Your task to perform on an android device: Open Reddit.com Image 0: 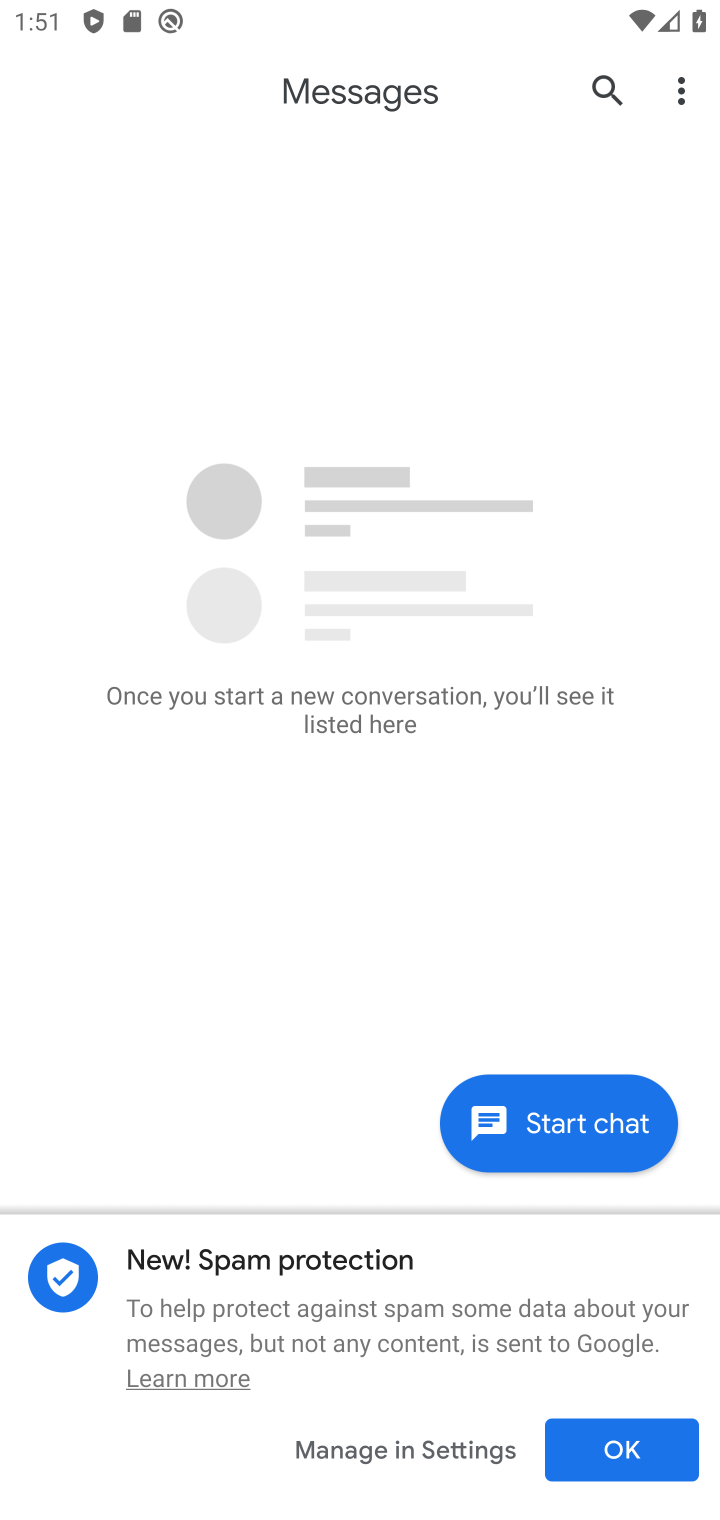
Step 0: press home button
Your task to perform on an android device: Open Reddit.com Image 1: 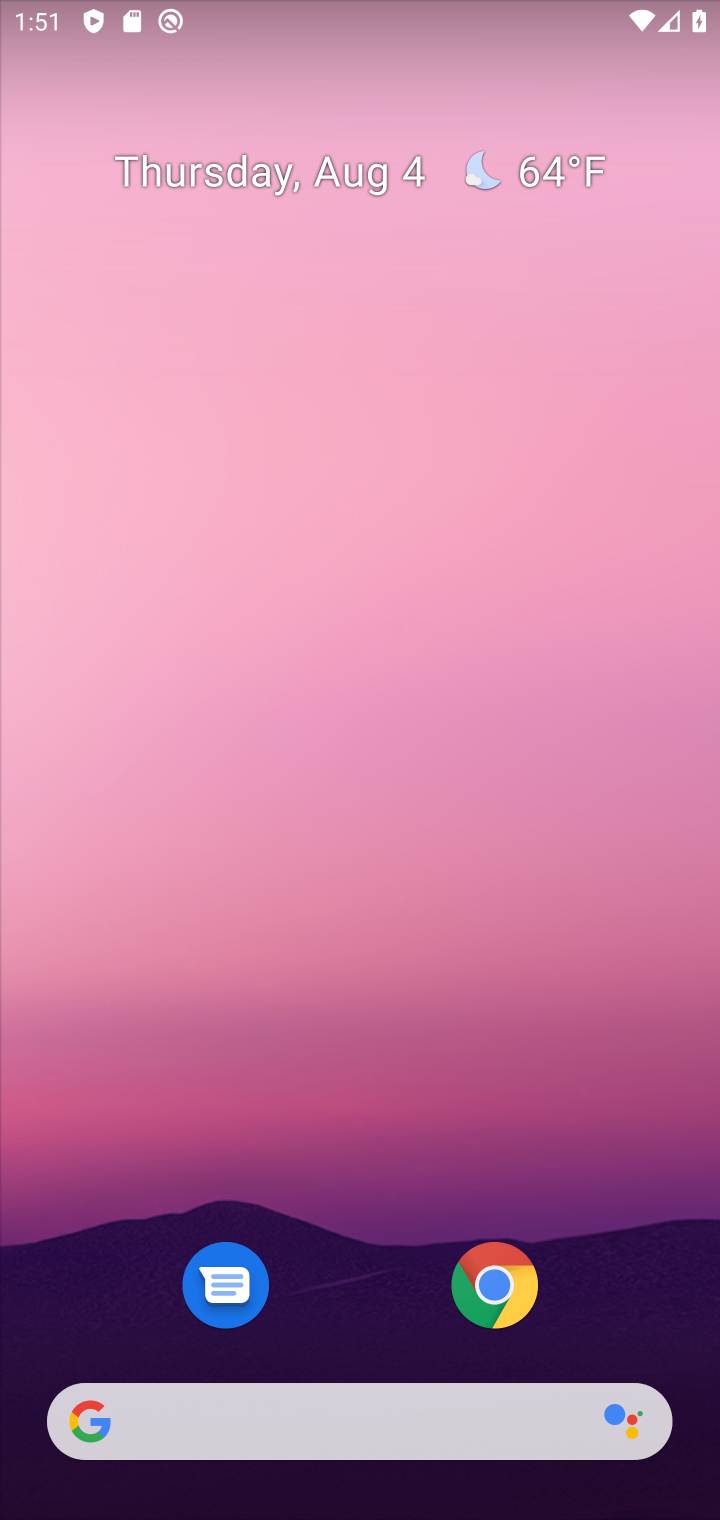
Step 1: click (500, 1283)
Your task to perform on an android device: Open Reddit.com Image 2: 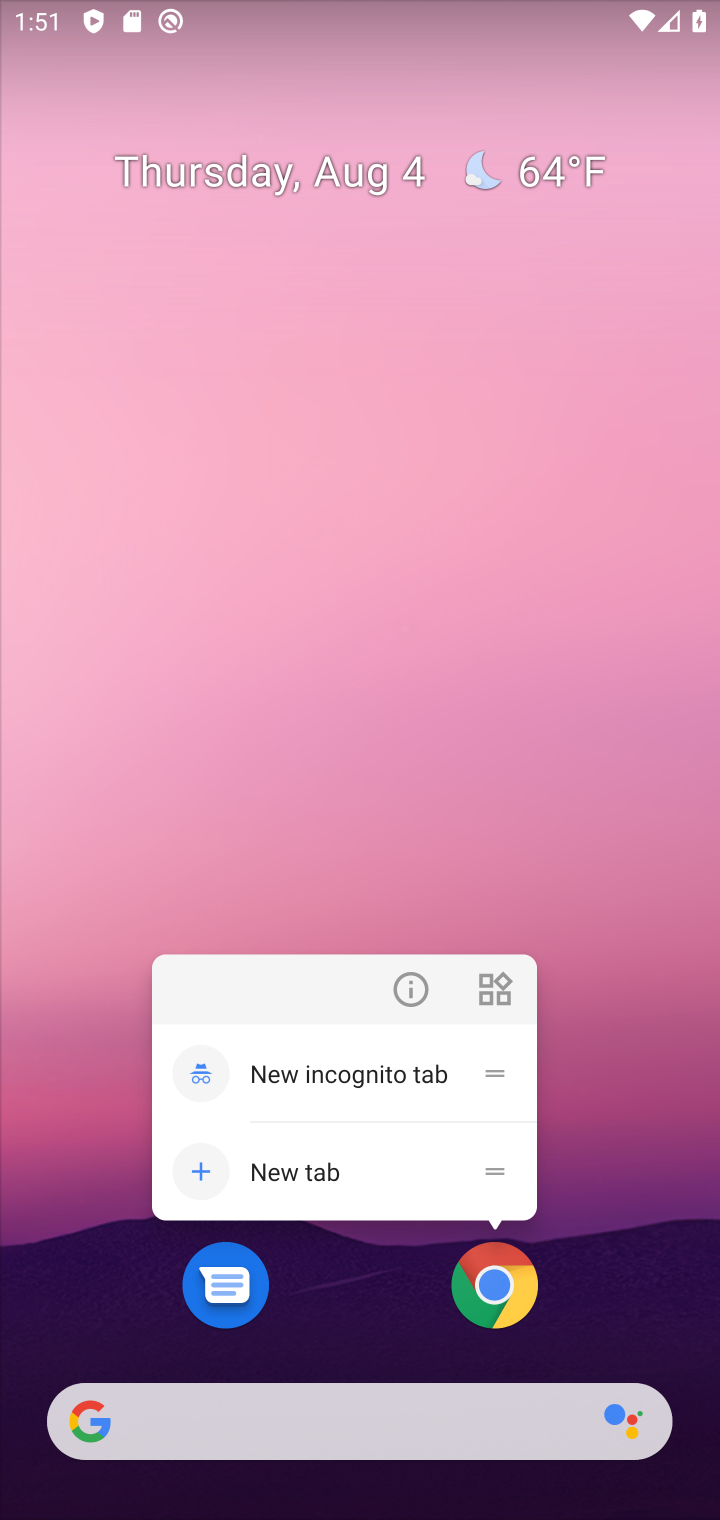
Step 2: click (494, 1285)
Your task to perform on an android device: Open Reddit.com Image 3: 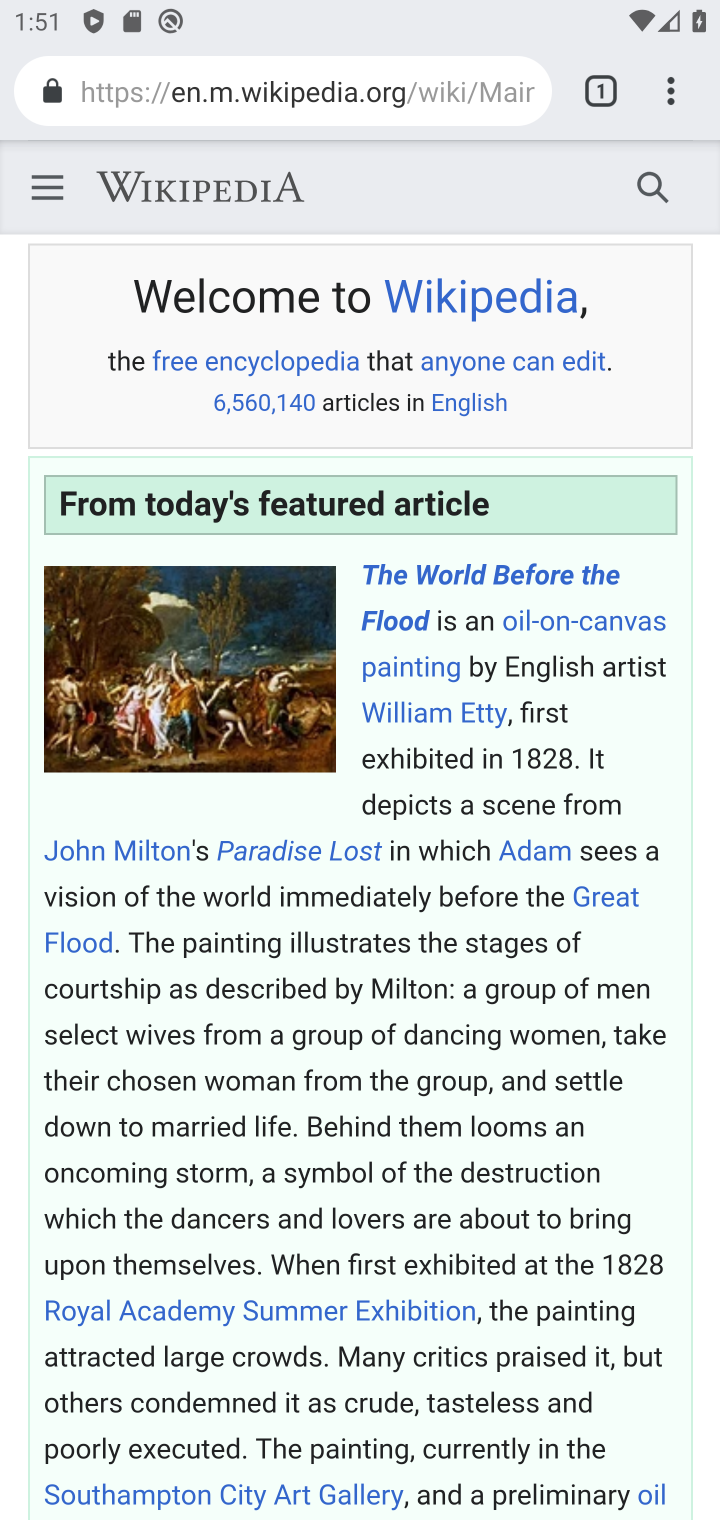
Step 3: click (529, 89)
Your task to perform on an android device: Open Reddit.com Image 4: 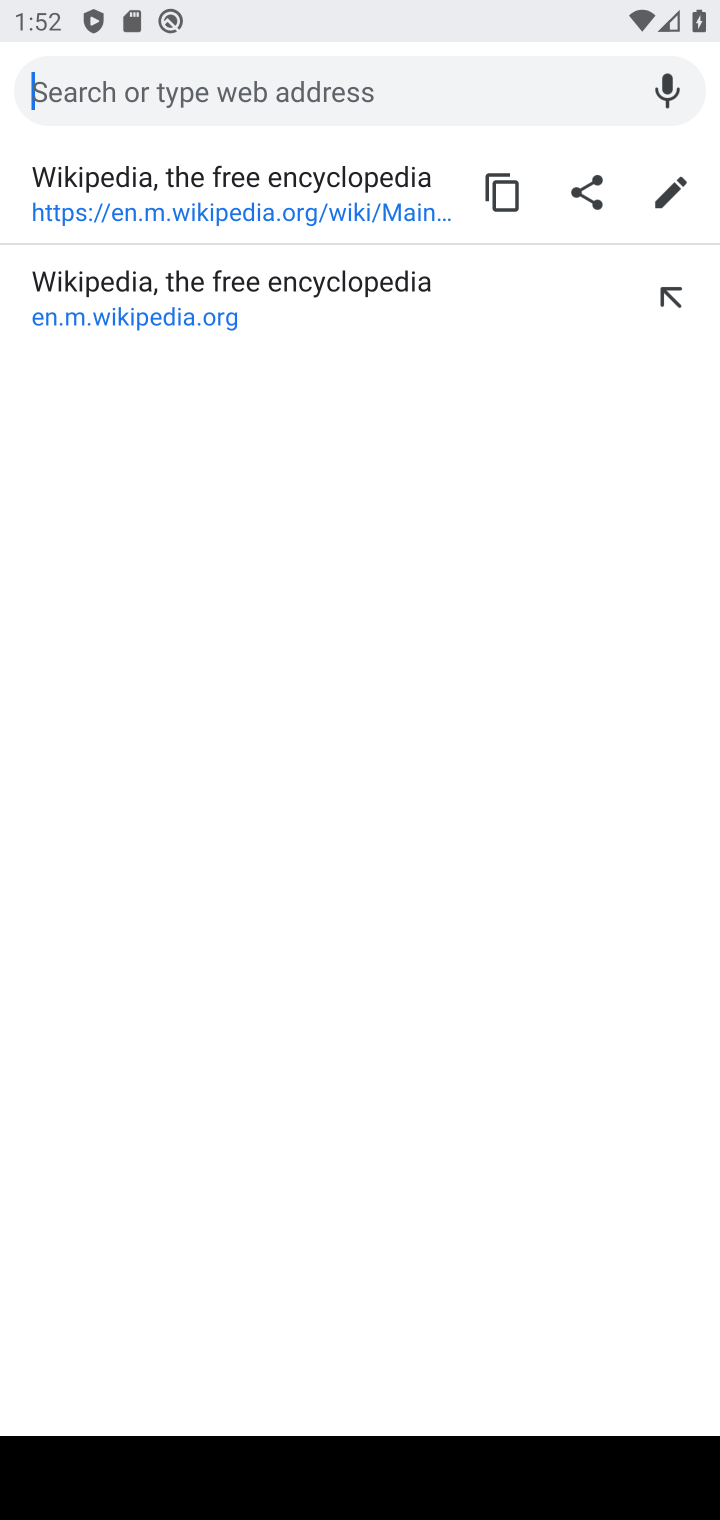
Step 4: type "reddit.com"
Your task to perform on an android device: Open Reddit.com Image 5: 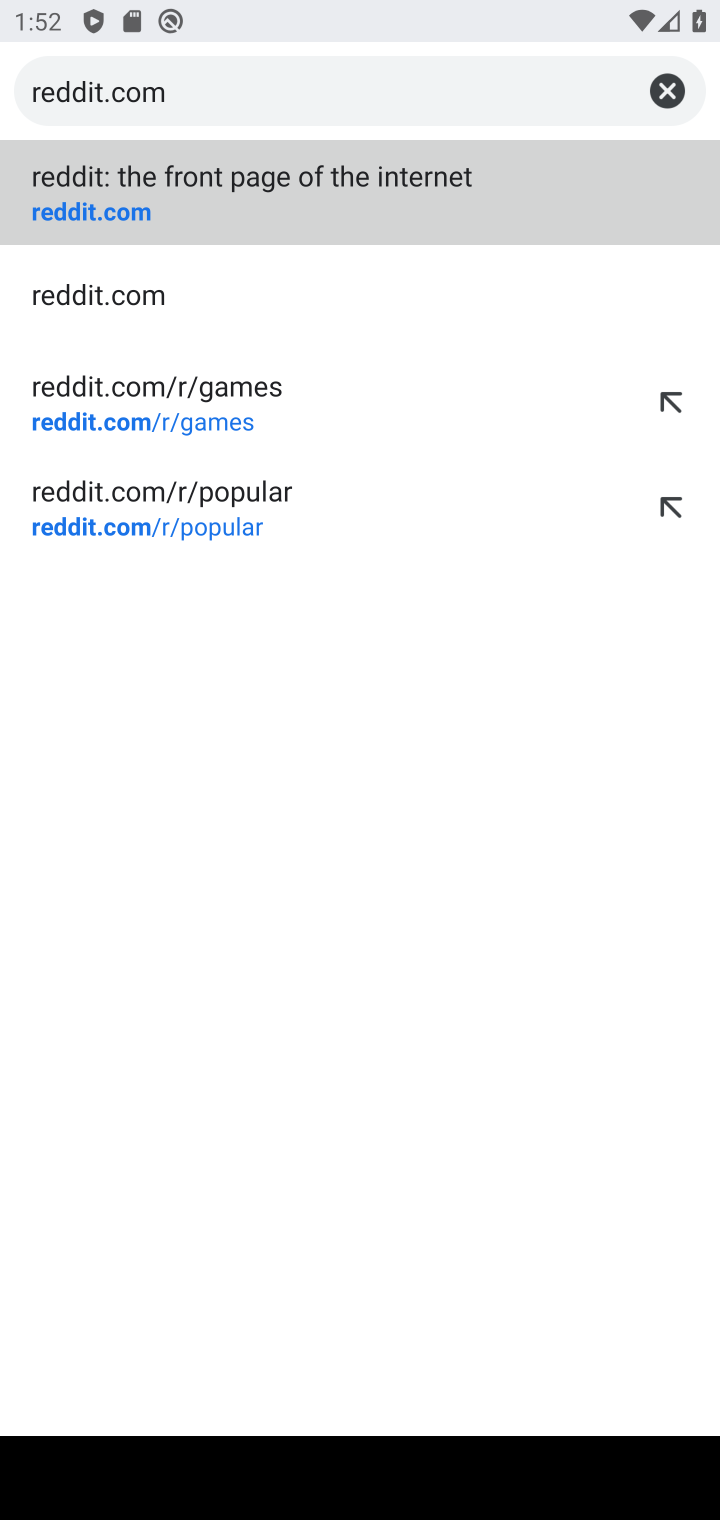
Step 5: click (90, 163)
Your task to perform on an android device: Open Reddit.com Image 6: 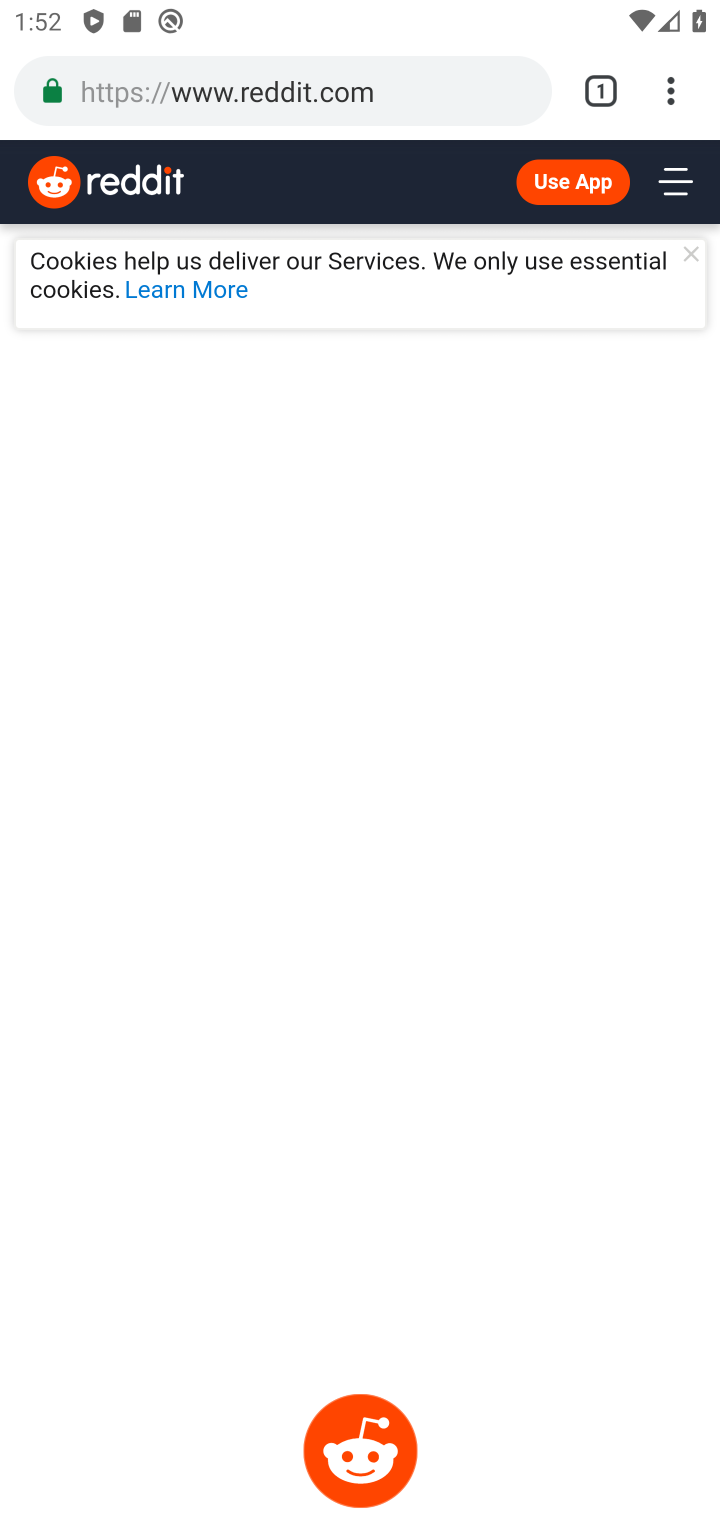
Step 6: task complete